Your task to perform on an android device: read, delete, or share a saved page in the chrome app Image 0: 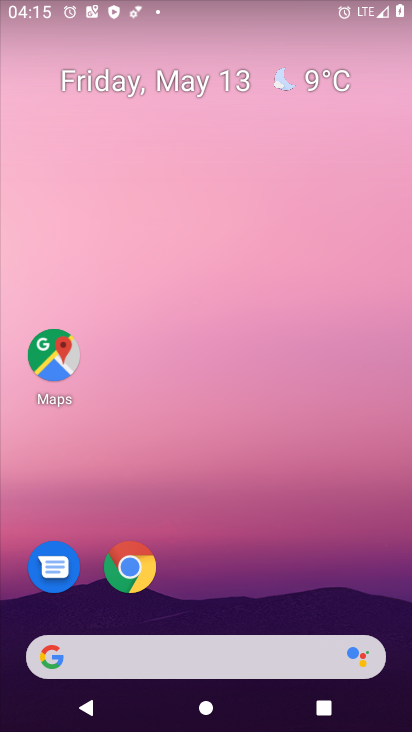
Step 0: click (138, 567)
Your task to perform on an android device: read, delete, or share a saved page in the chrome app Image 1: 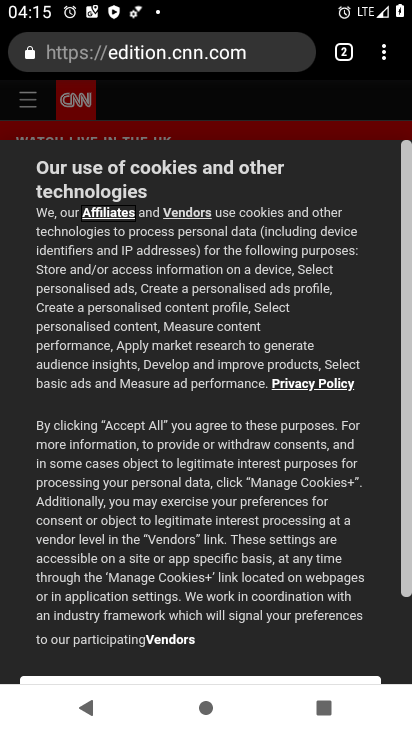
Step 1: click (385, 59)
Your task to perform on an android device: read, delete, or share a saved page in the chrome app Image 2: 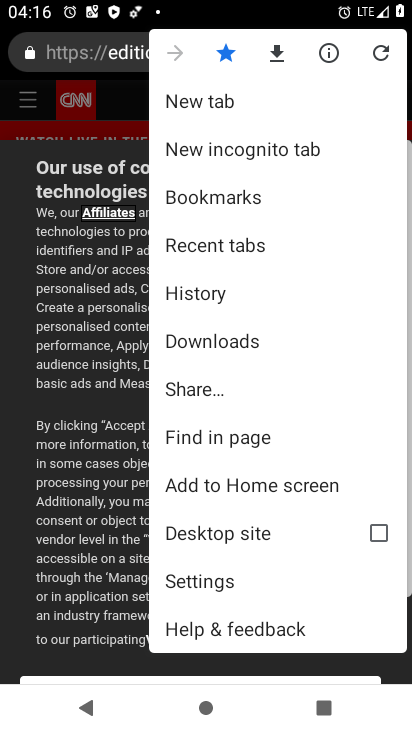
Step 2: click (206, 340)
Your task to perform on an android device: read, delete, or share a saved page in the chrome app Image 3: 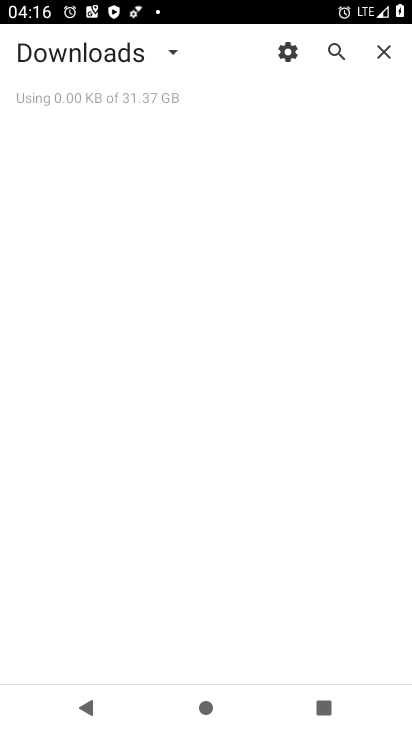
Step 3: click (171, 53)
Your task to perform on an android device: read, delete, or share a saved page in the chrome app Image 4: 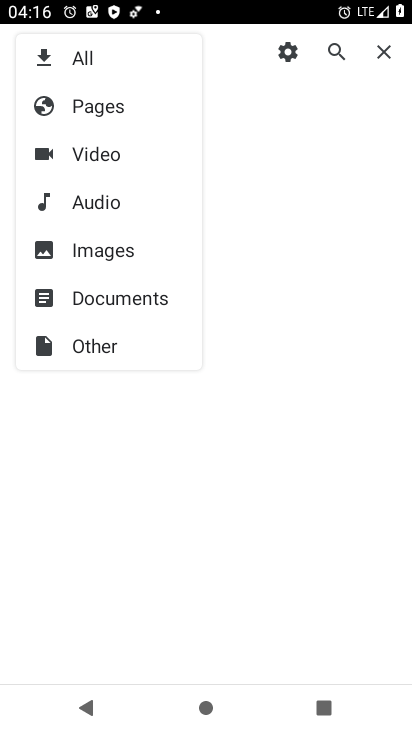
Step 4: click (109, 104)
Your task to perform on an android device: read, delete, or share a saved page in the chrome app Image 5: 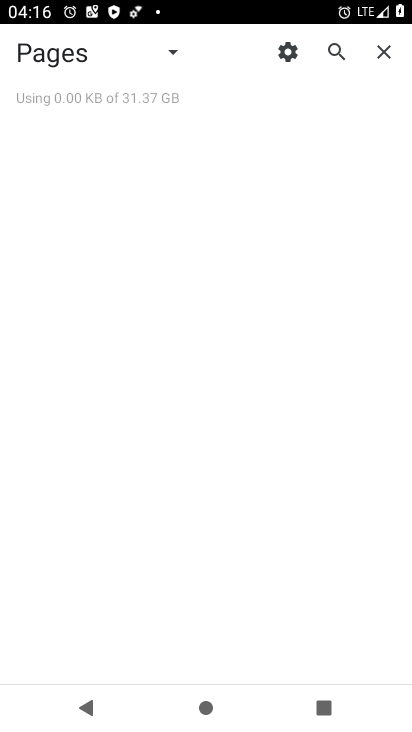
Step 5: task complete